Your task to perform on an android device: Is it going to rain tomorrow? Image 0: 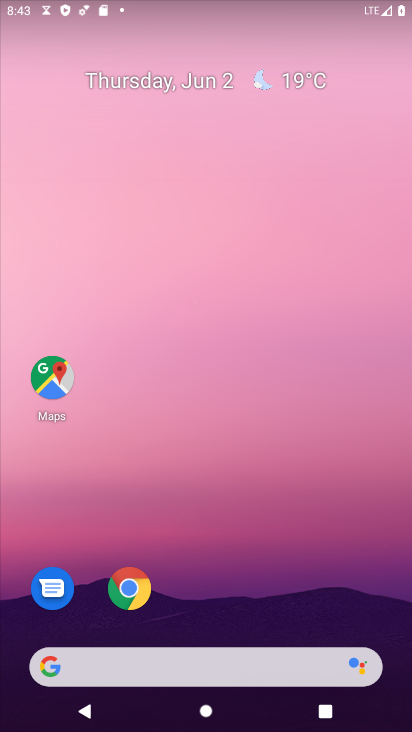
Step 0: click (271, 91)
Your task to perform on an android device: Is it going to rain tomorrow? Image 1: 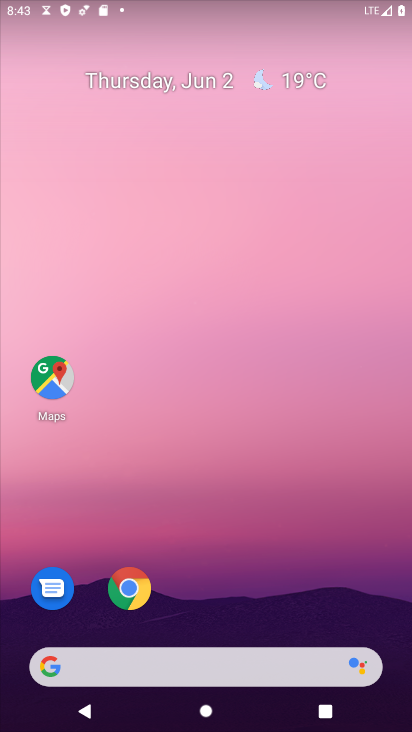
Step 1: click (264, 78)
Your task to perform on an android device: Is it going to rain tomorrow? Image 2: 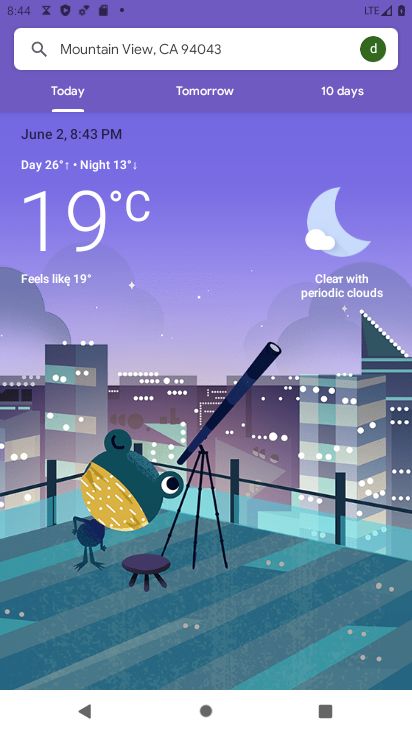
Step 2: click (192, 90)
Your task to perform on an android device: Is it going to rain tomorrow? Image 3: 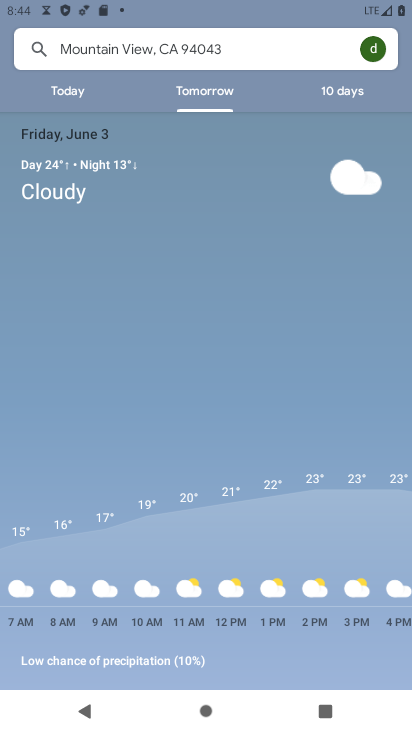
Step 3: task complete